Your task to perform on an android device: Open network settings Image 0: 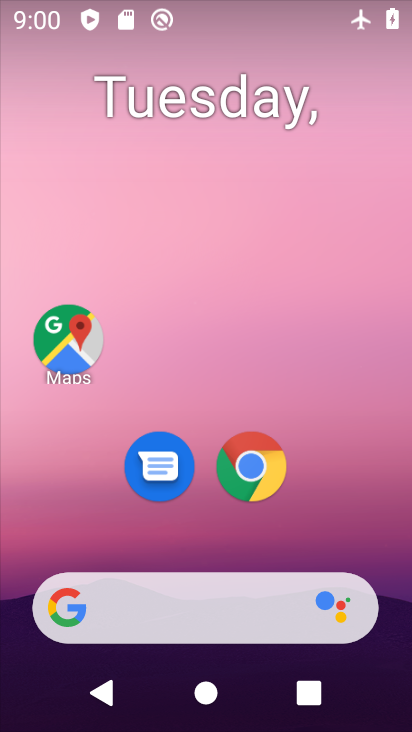
Step 0: drag from (340, 515) to (249, 86)
Your task to perform on an android device: Open network settings Image 1: 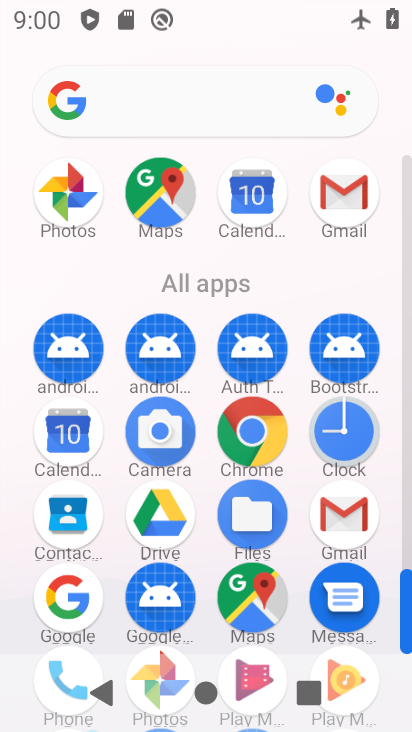
Step 1: drag from (300, 510) to (335, 160)
Your task to perform on an android device: Open network settings Image 2: 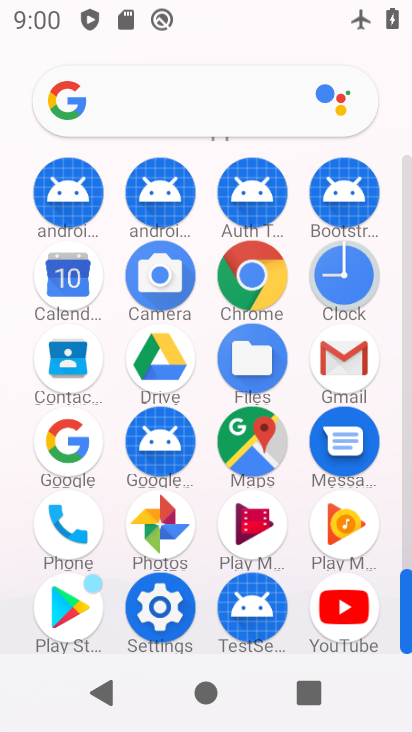
Step 2: click (174, 624)
Your task to perform on an android device: Open network settings Image 3: 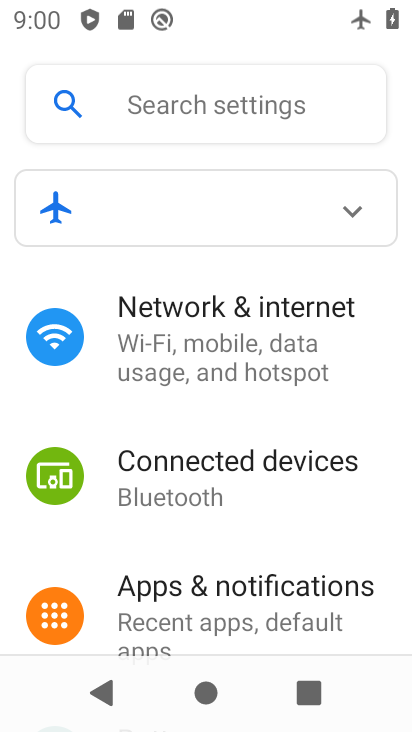
Step 3: click (226, 334)
Your task to perform on an android device: Open network settings Image 4: 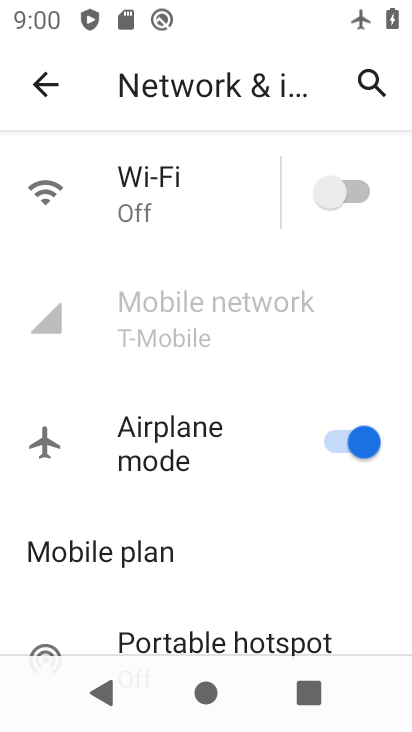
Step 4: click (197, 220)
Your task to perform on an android device: Open network settings Image 5: 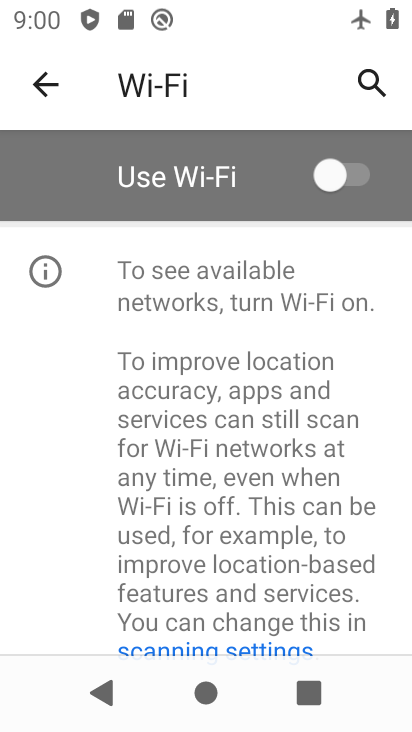
Step 5: click (354, 171)
Your task to perform on an android device: Open network settings Image 6: 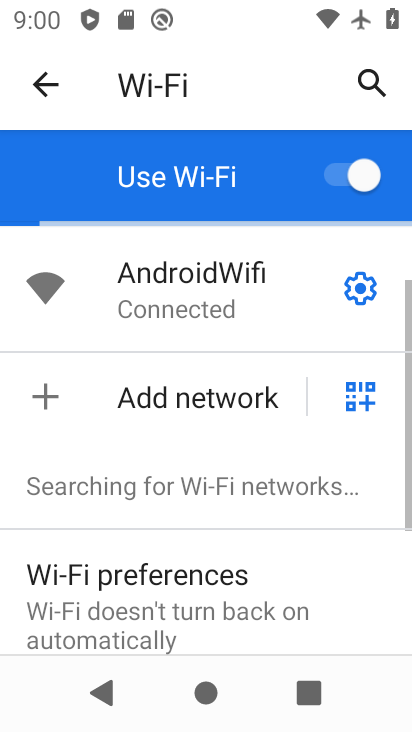
Step 6: click (359, 282)
Your task to perform on an android device: Open network settings Image 7: 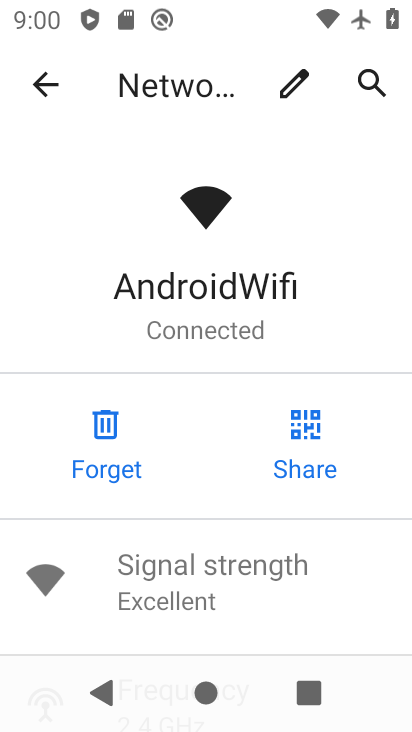
Step 7: task complete